Your task to perform on an android device: find photos in the google photos app Image 0: 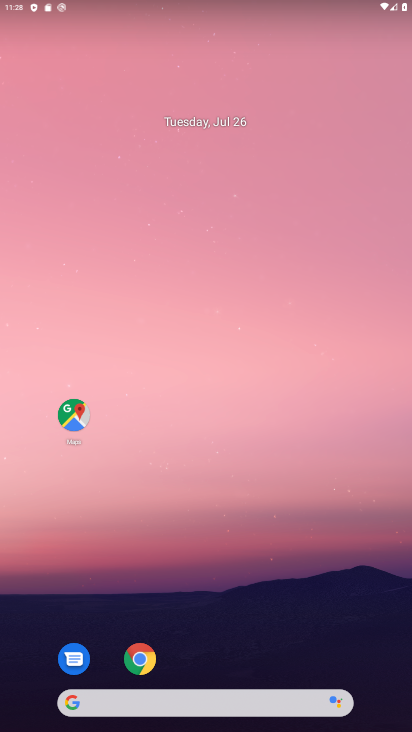
Step 0: drag from (228, 522) to (180, 110)
Your task to perform on an android device: find photos in the google photos app Image 1: 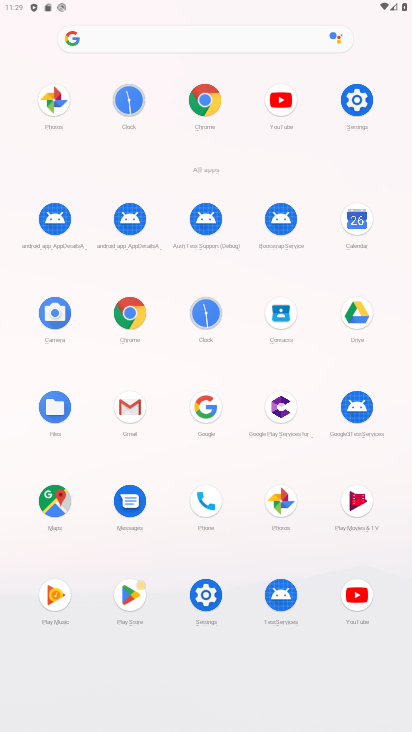
Step 1: click (269, 517)
Your task to perform on an android device: find photos in the google photos app Image 2: 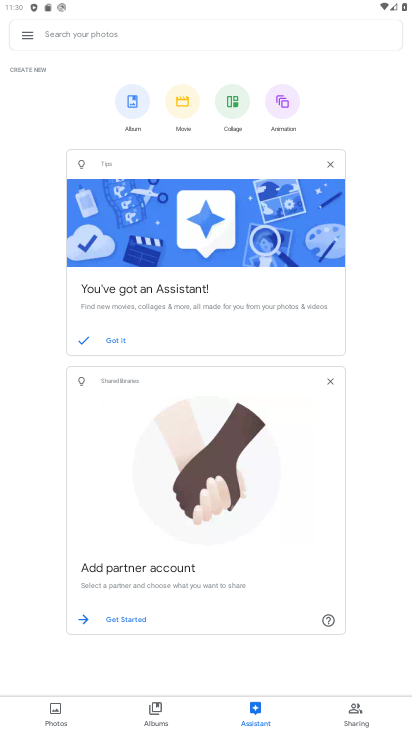
Step 2: click (60, 711)
Your task to perform on an android device: find photos in the google photos app Image 3: 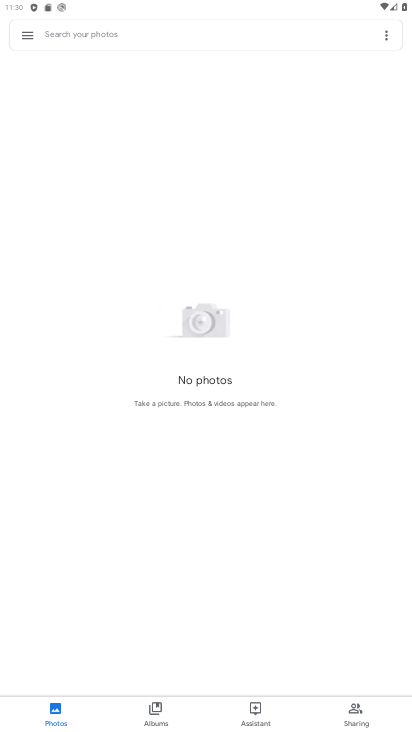
Step 3: task complete